Your task to perform on an android device: Go to Google Image 0: 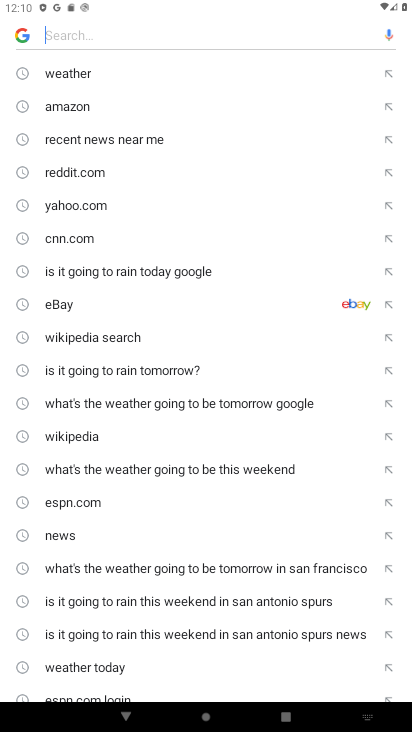
Step 0: task complete